Your task to perform on an android device: Go to privacy settings Image 0: 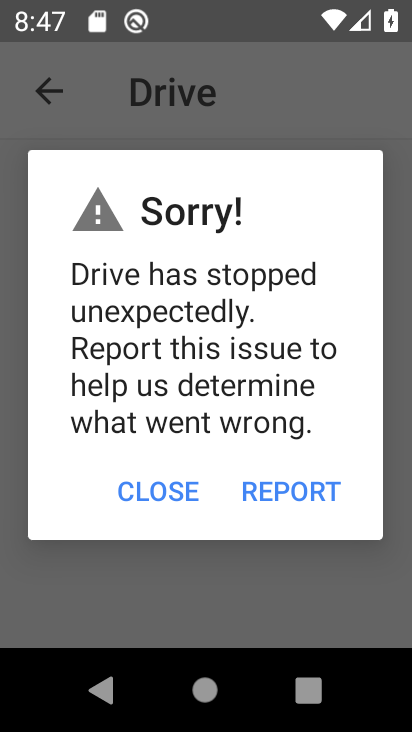
Step 0: press home button
Your task to perform on an android device: Go to privacy settings Image 1: 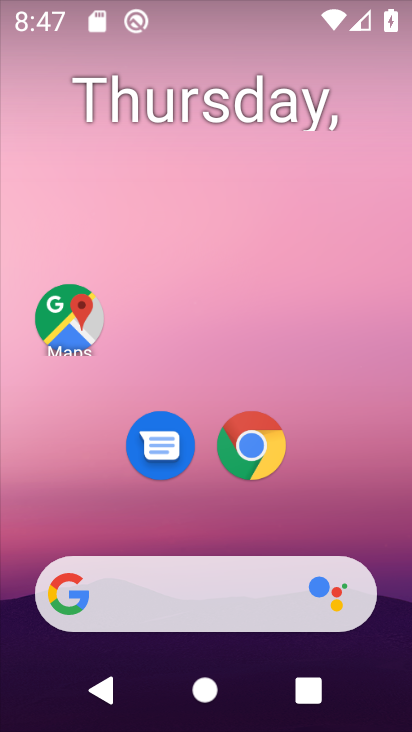
Step 1: drag from (317, 456) to (292, 141)
Your task to perform on an android device: Go to privacy settings Image 2: 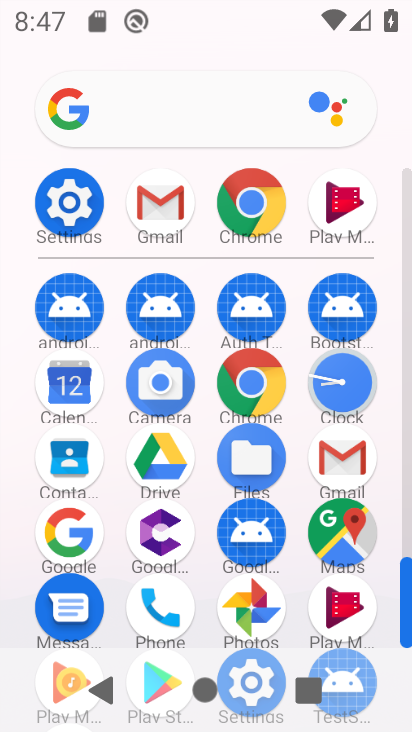
Step 2: click (70, 210)
Your task to perform on an android device: Go to privacy settings Image 3: 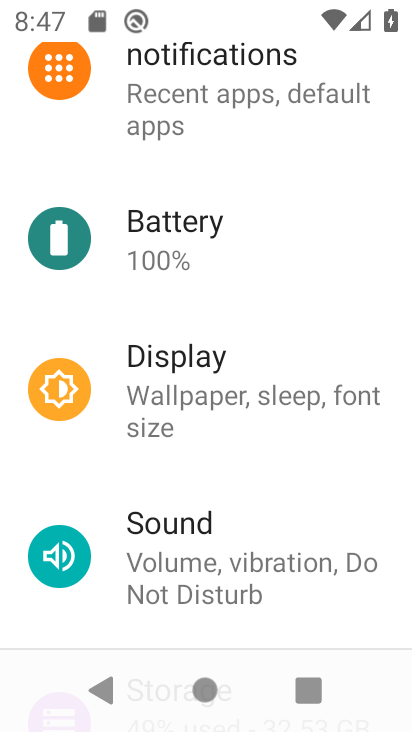
Step 3: drag from (248, 550) to (212, 147)
Your task to perform on an android device: Go to privacy settings Image 4: 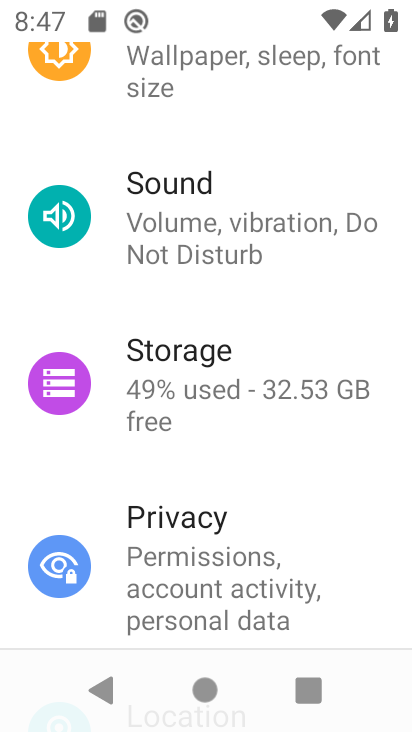
Step 4: click (160, 544)
Your task to perform on an android device: Go to privacy settings Image 5: 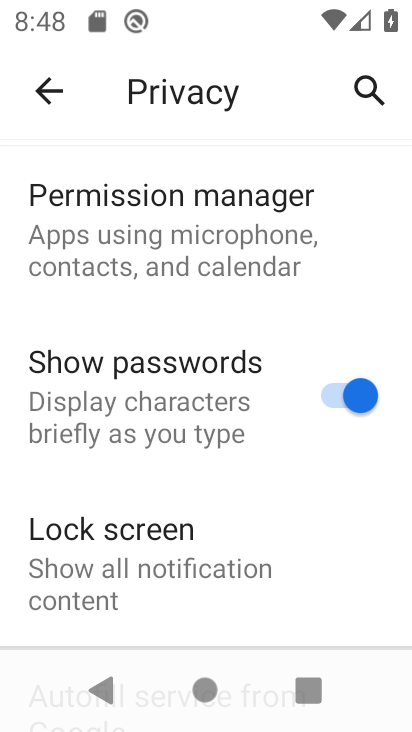
Step 5: task complete